Your task to perform on an android device: open sync settings in chrome Image 0: 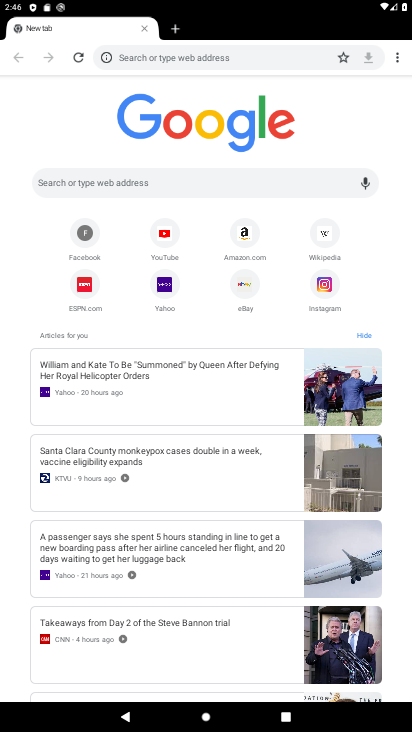
Step 0: drag from (392, 52) to (296, 261)
Your task to perform on an android device: open sync settings in chrome Image 1: 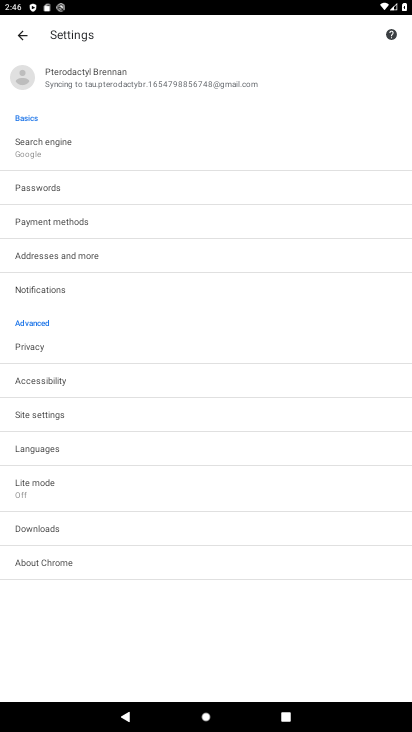
Step 1: click (141, 81)
Your task to perform on an android device: open sync settings in chrome Image 2: 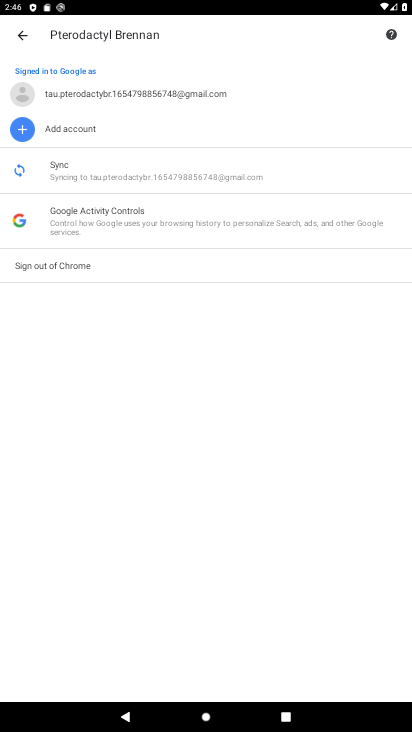
Step 2: click (147, 175)
Your task to perform on an android device: open sync settings in chrome Image 3: 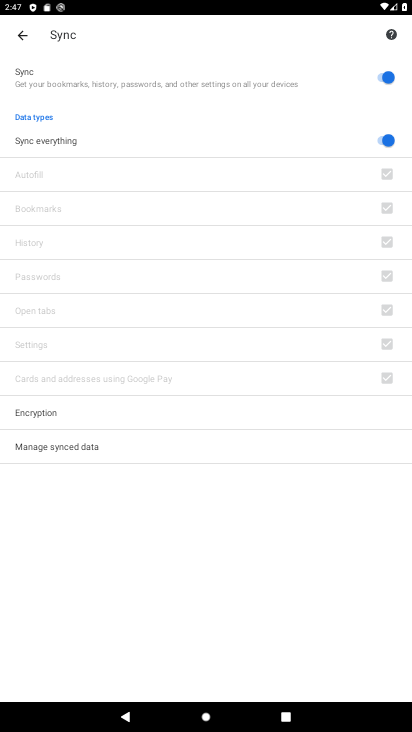
Step 3: task complete